Your task to perform on an android device: Clear the cart on bestbuy. Search for "razer thresher" on bestbuy, select the first entry, add it to the cart, then select checkout. Image 0: 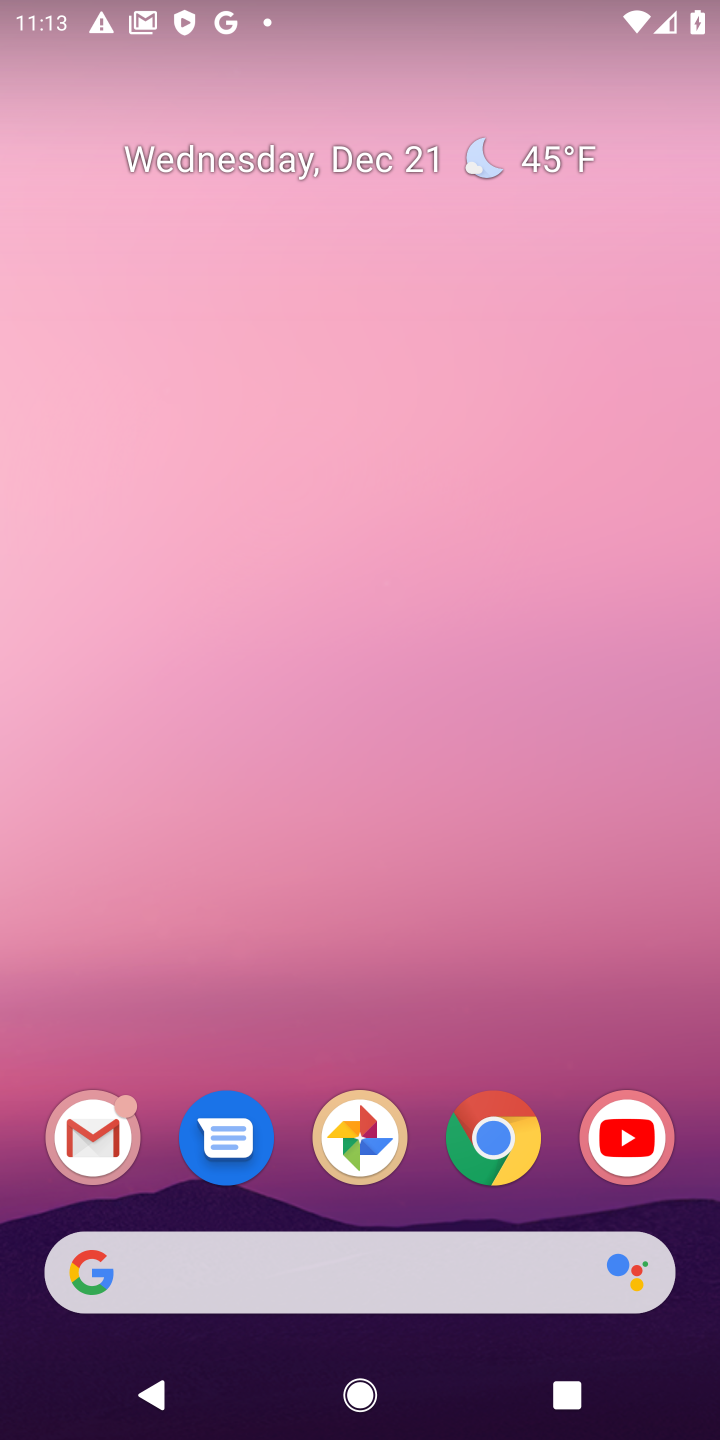
Step 0: click (502, 1151)
Your task to perform on an android device: Clear the cart on bestbuy. Search for "razer thresher" on bestbuy, select the first entry, add it to the cart, then select checkout. Image 1: 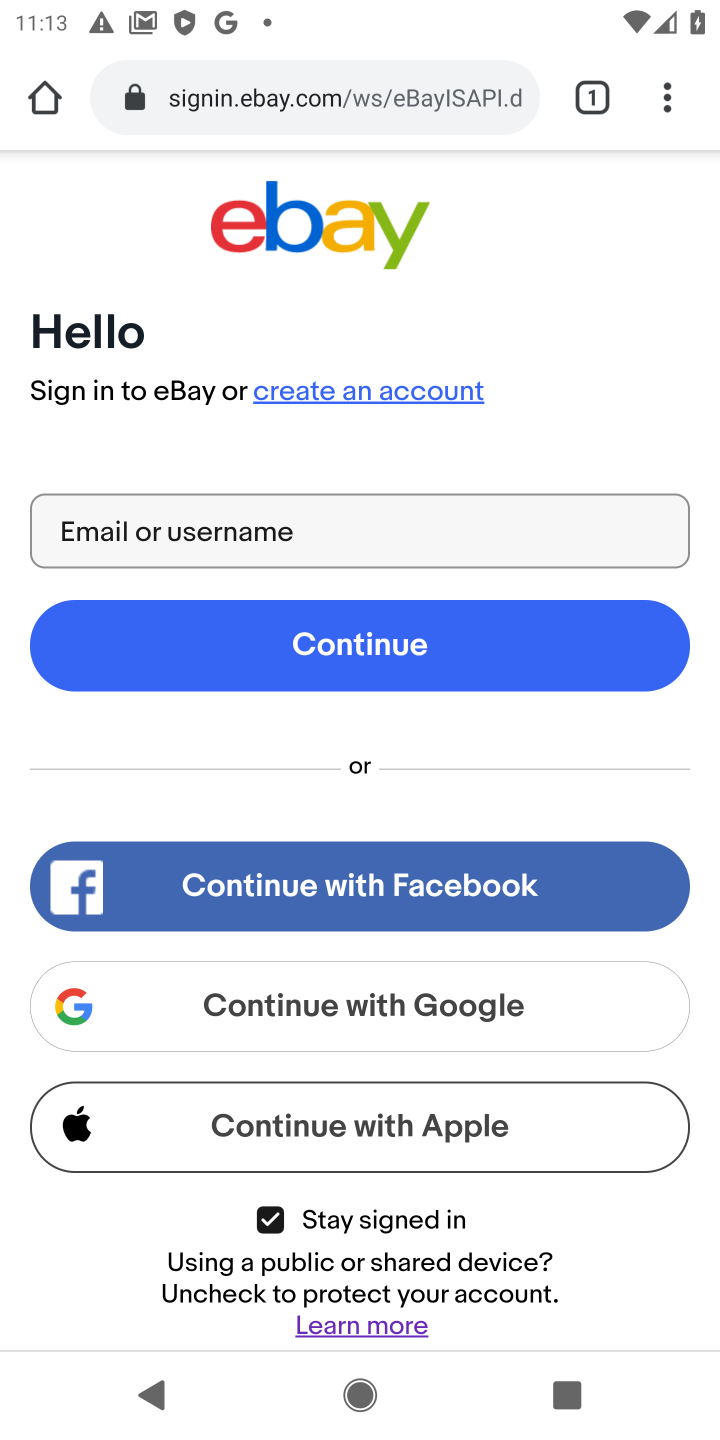
Step 1: click (265, 102)
Your task to perform on an android device: Clear the cart on bestbuy. Search for "razer thresher" on bestbuy, select the first entry, add it to the cart, then select checkout. Image 2: 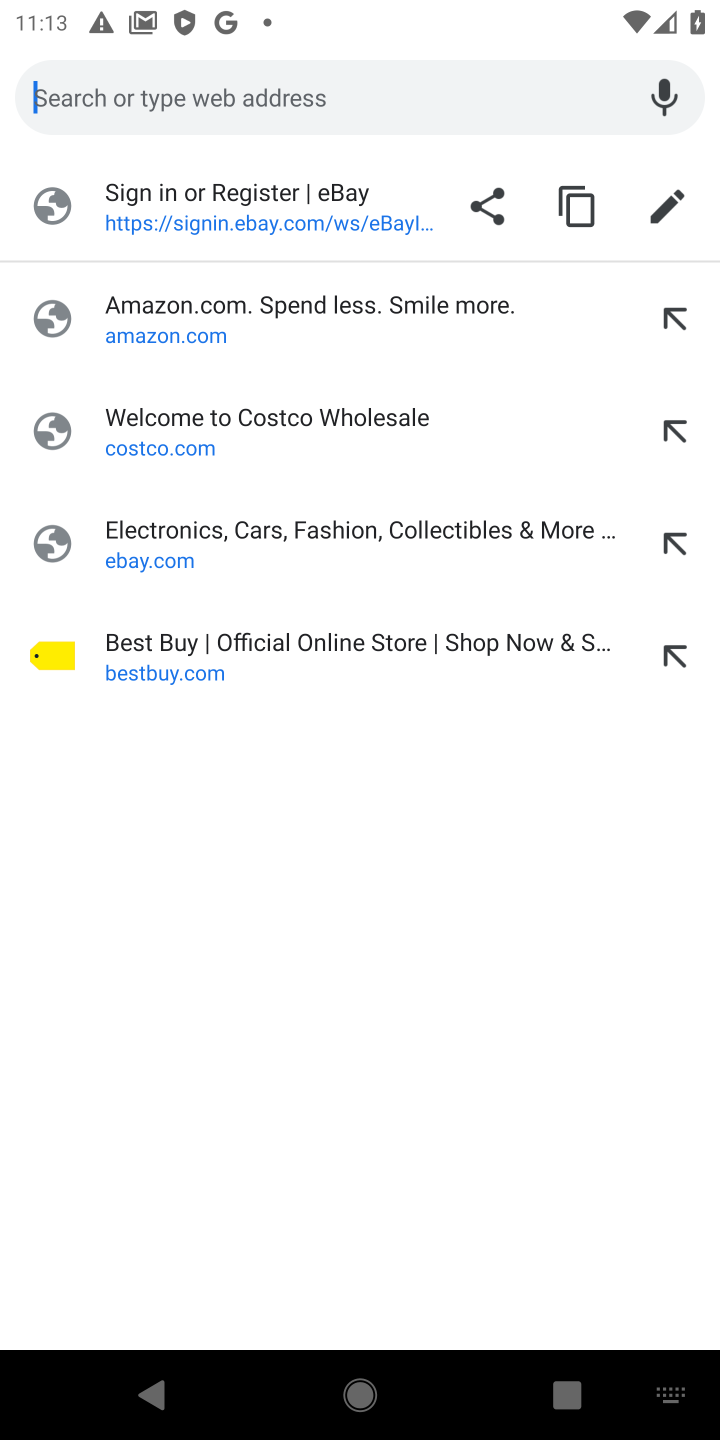
Step 2: click (167, 657)
Your task to perform on an android device: Clear the cart on bestbuy. Search for "razer thresher" on bestbuy, select the first entry, add it to the cart, then select checkout. Image 3: 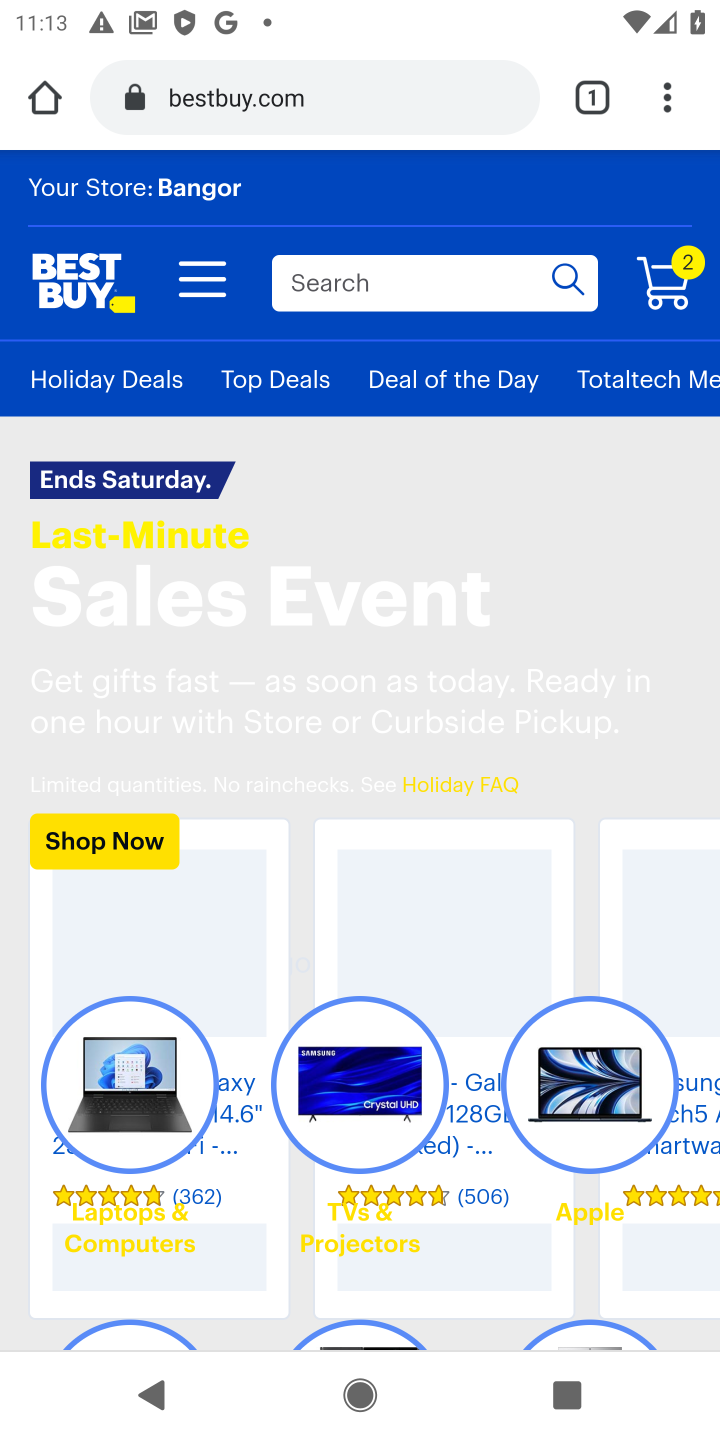
Step 3: click (652, 292)
Your task to perform on an android device: Clear the cart on bestbuy. Search for "razer thresher" on bestbuy, select the first entry, add it to the cart, then select checkout. Image 4: 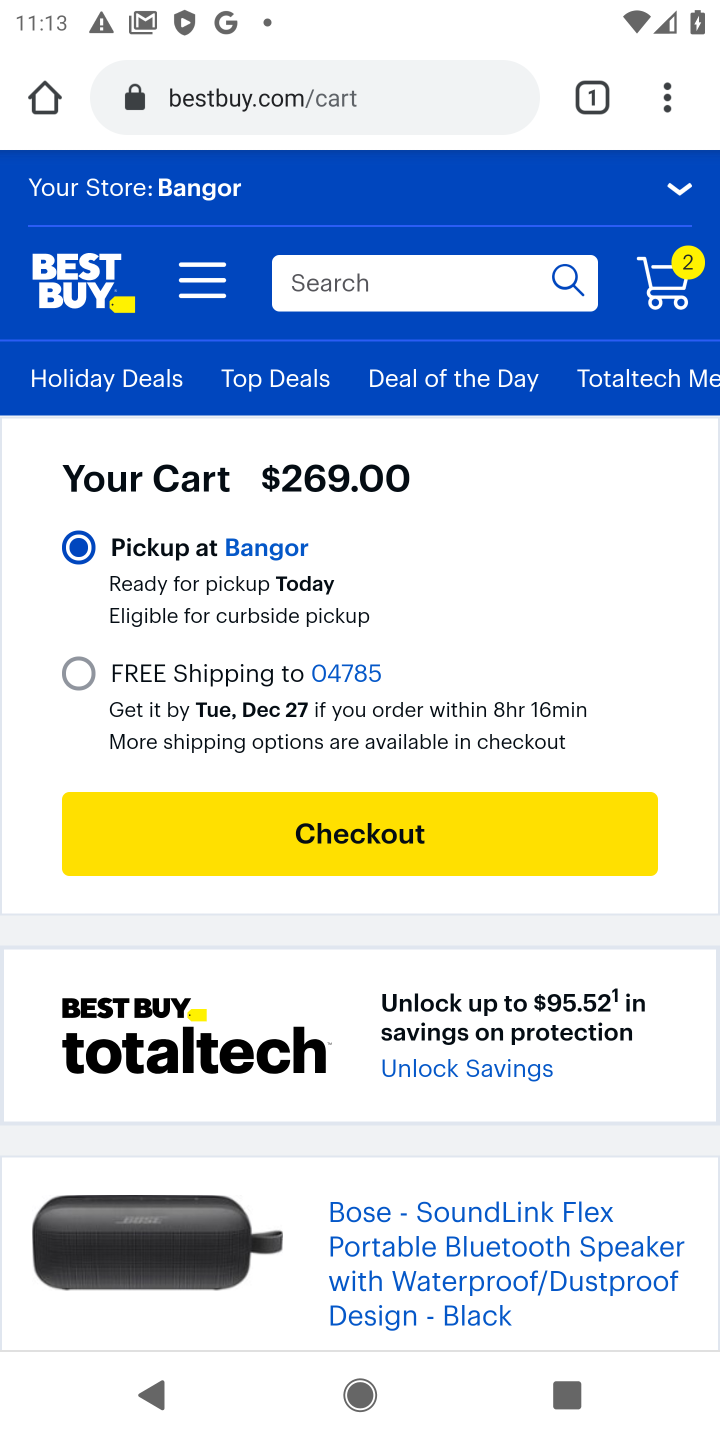
Step 4: drag from (326, 918) to (295, 559)
Your task to perform on an android device: Clear the cart on bestbuy. Search for "razer thresher" on bestbuy, select the first entry, add it to the cart, then select checkout. Image 5: 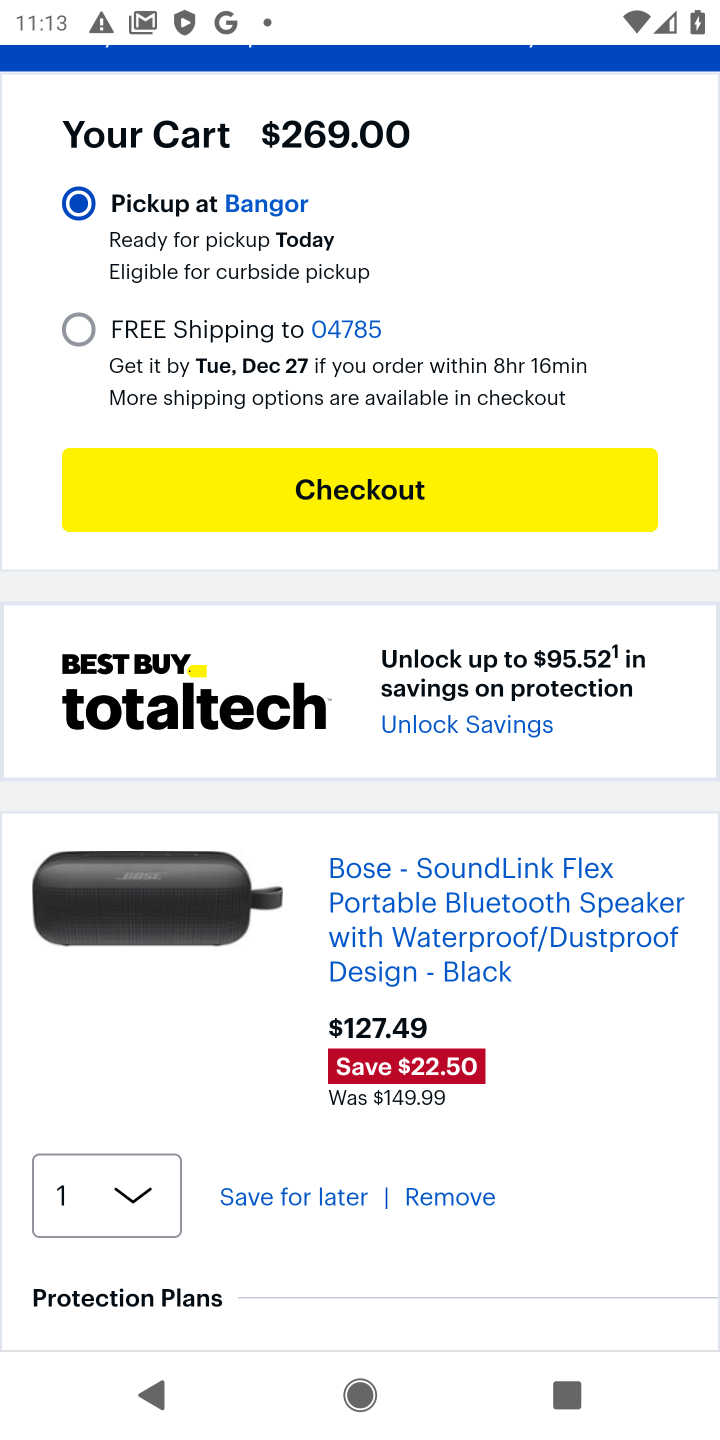
Step 5: click (436, 1192)
Your task to perform on an android device: Clear the cart on bestbuy. Search for "razer thresher" on bestbuy, select the first entry, add it to the cart, then select checkout. Image 6: 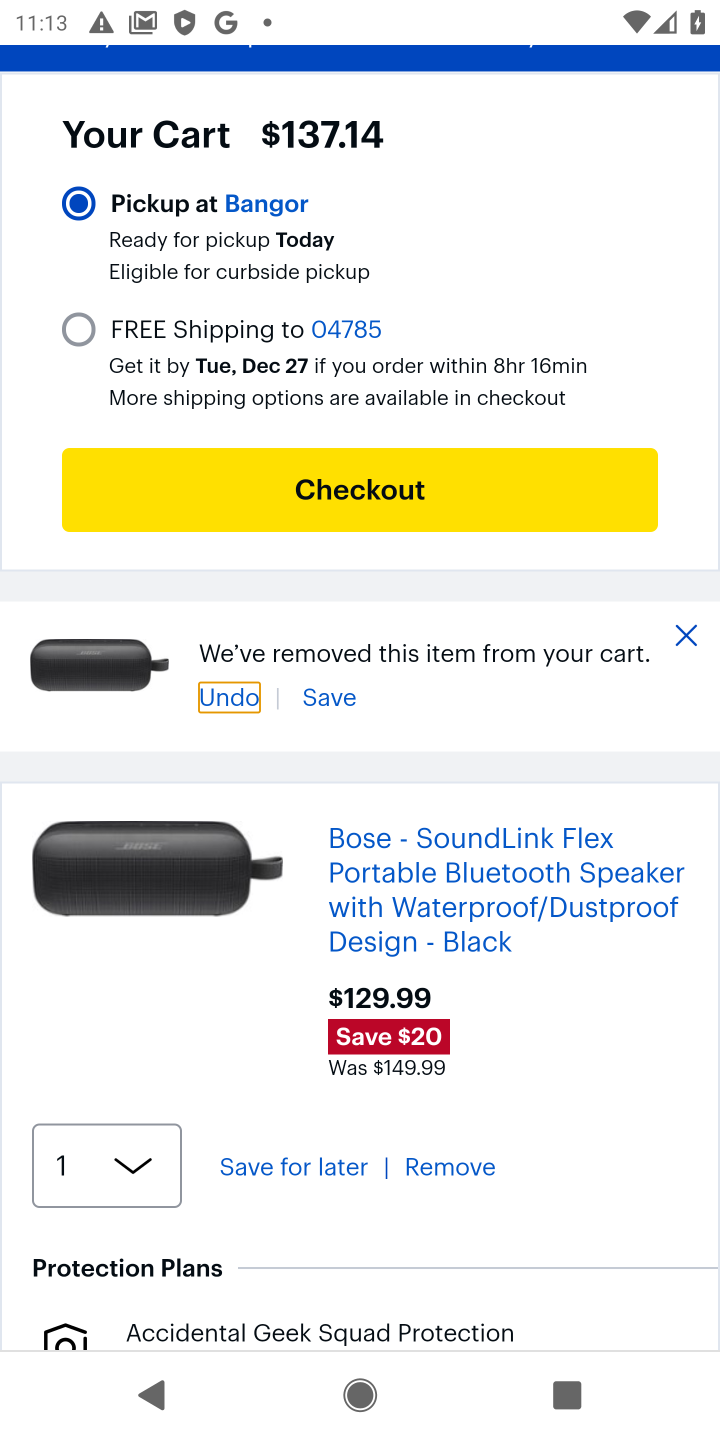
Step 6: click (447, 1172)
Your task to perform on an android device: Clear the cart on bestbuy. Search for "razer thresher" on bestbuy, select the first entry, add it to the cart, then select checkout. Image 7: 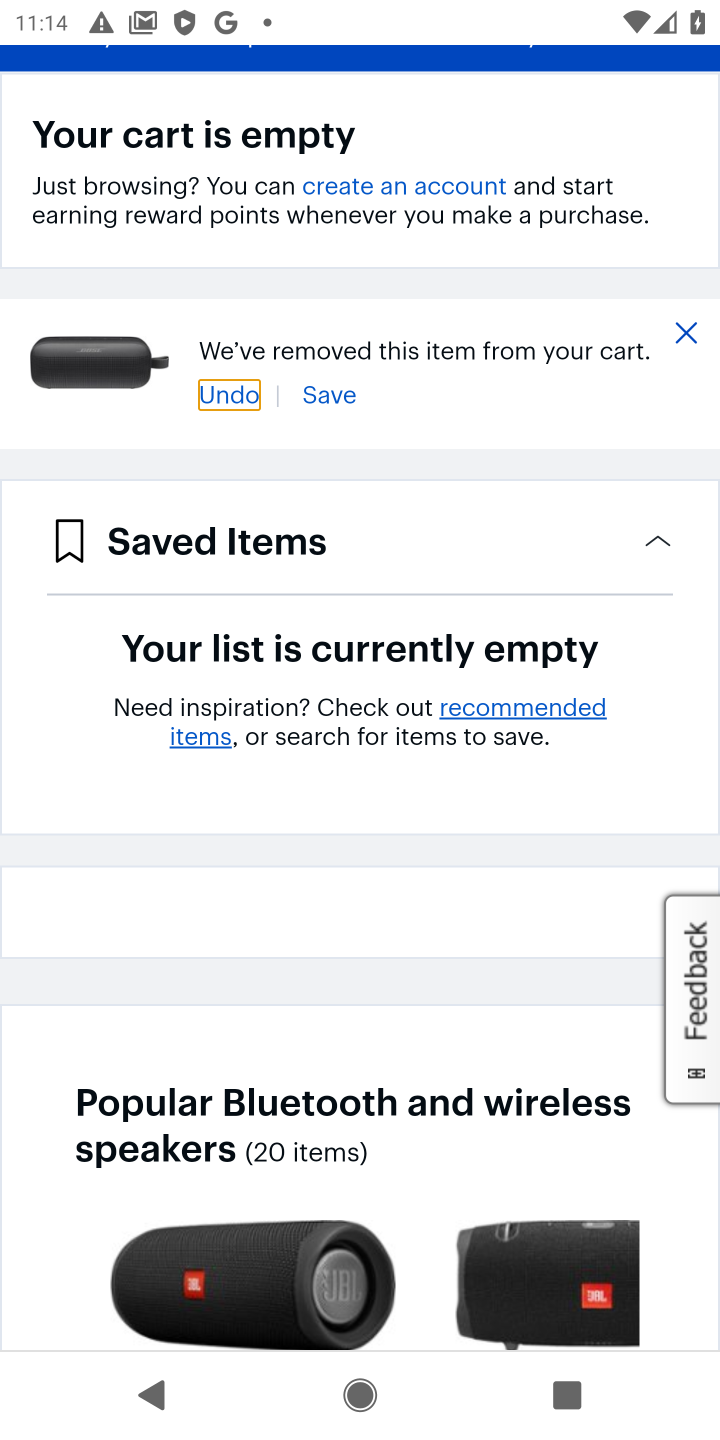
Step 7: drag from (419, 257) to (396, 776)
Your task to perform on an android device: Clear the cart on bestbuy. Search for "razer thresher" on bestbuy, select the first entry, add it to the cart, then select checkout. Image 8: 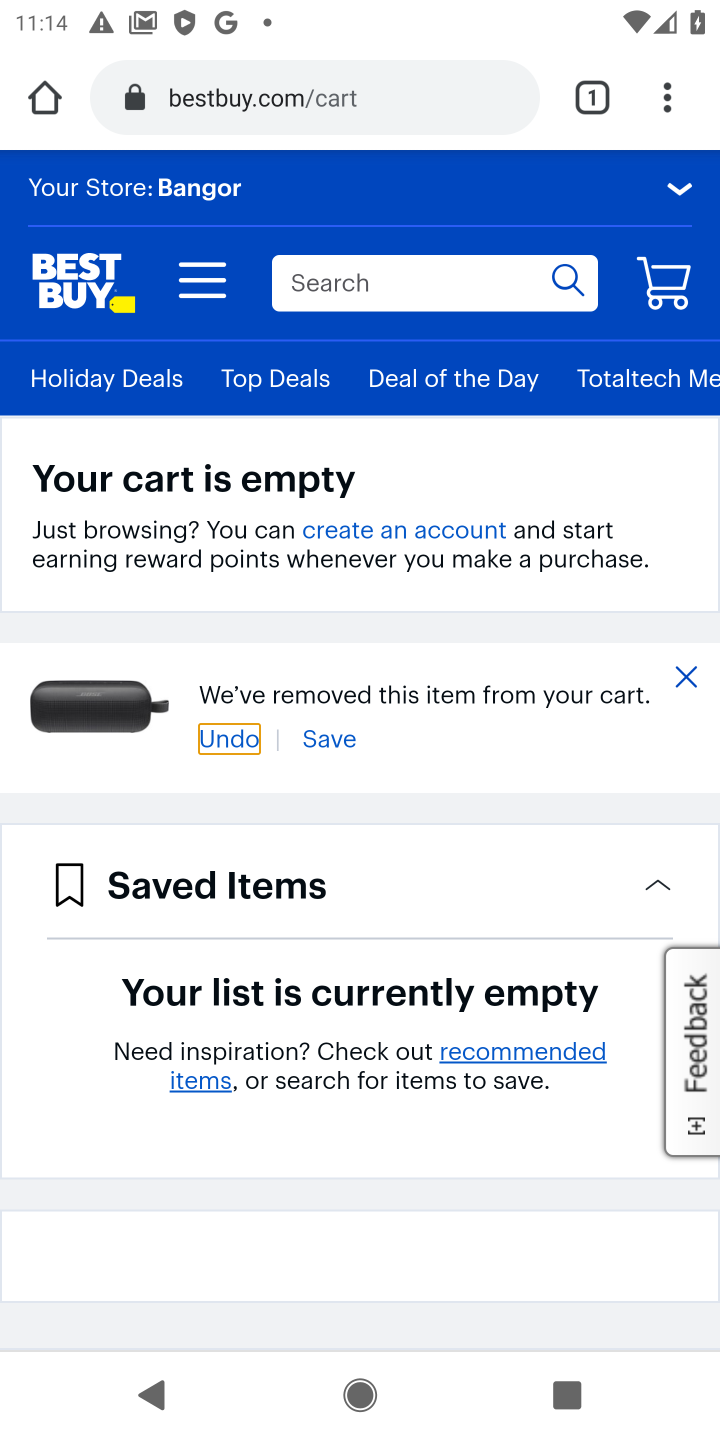
Step 8: click (294, 293)
Your task to perform on an android device: Clear the cart on bestbuy. Search for "razer thresher" on bestbuy, select the first entry, add it to the cart, then select checkout. Image 9: 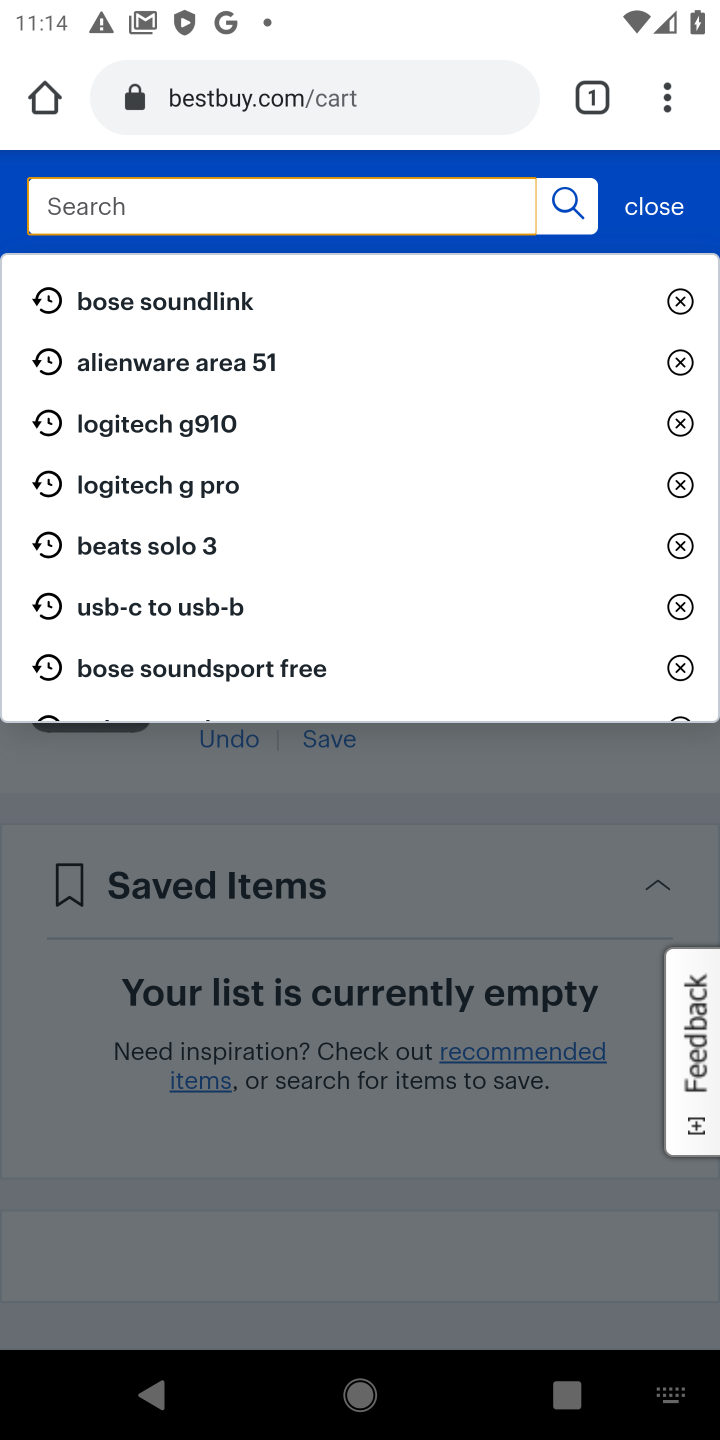
Step 9: type "razer thresher"
Your task to perform on an android device: Clear the cart on bestbuy. Search for "razer thresher" on bestbuy, select the first entry, add it to the cart, then select checkout. Image 10: 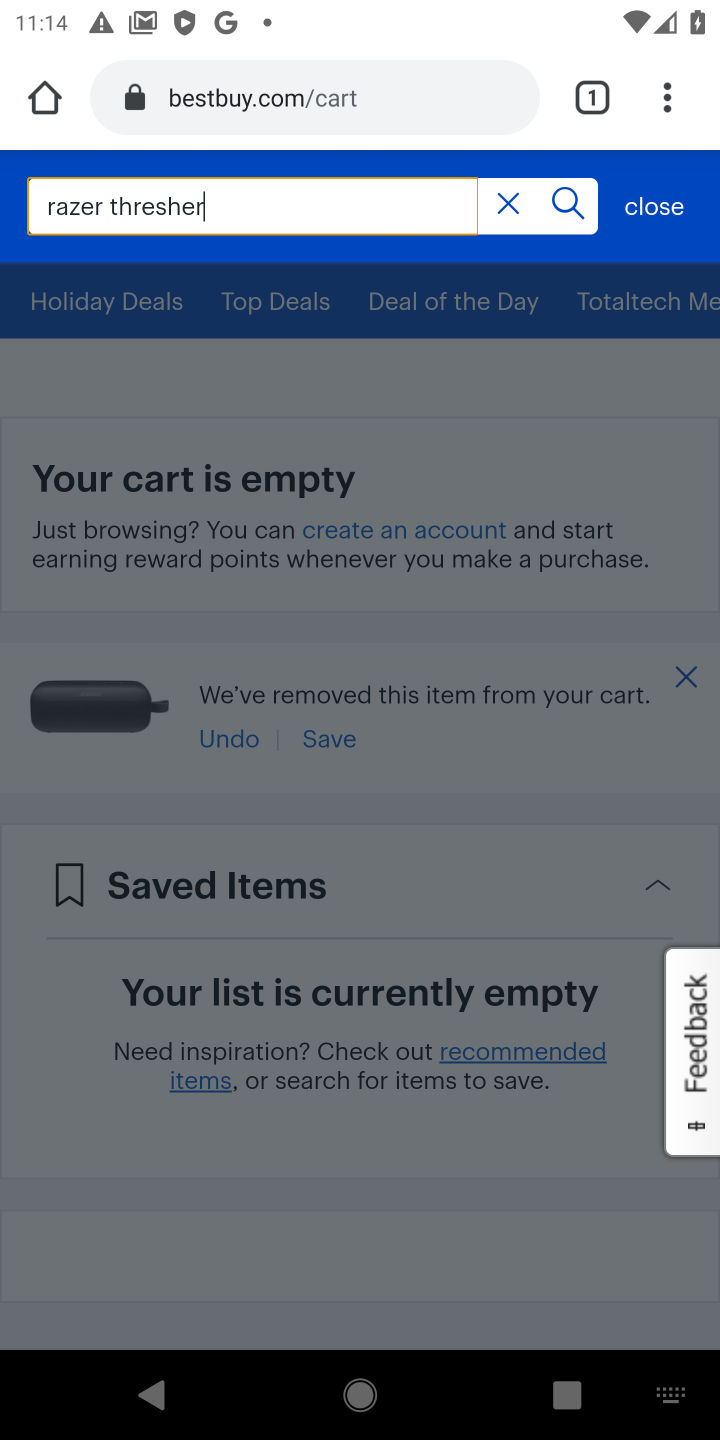
Step 10: click (572, 212)
Your task to perform on an android device: Clear the cart on bestbuy. Search for "razer thresher" on bestbuy, select the first entry, add it to the cart, then select checkout. Image 11: 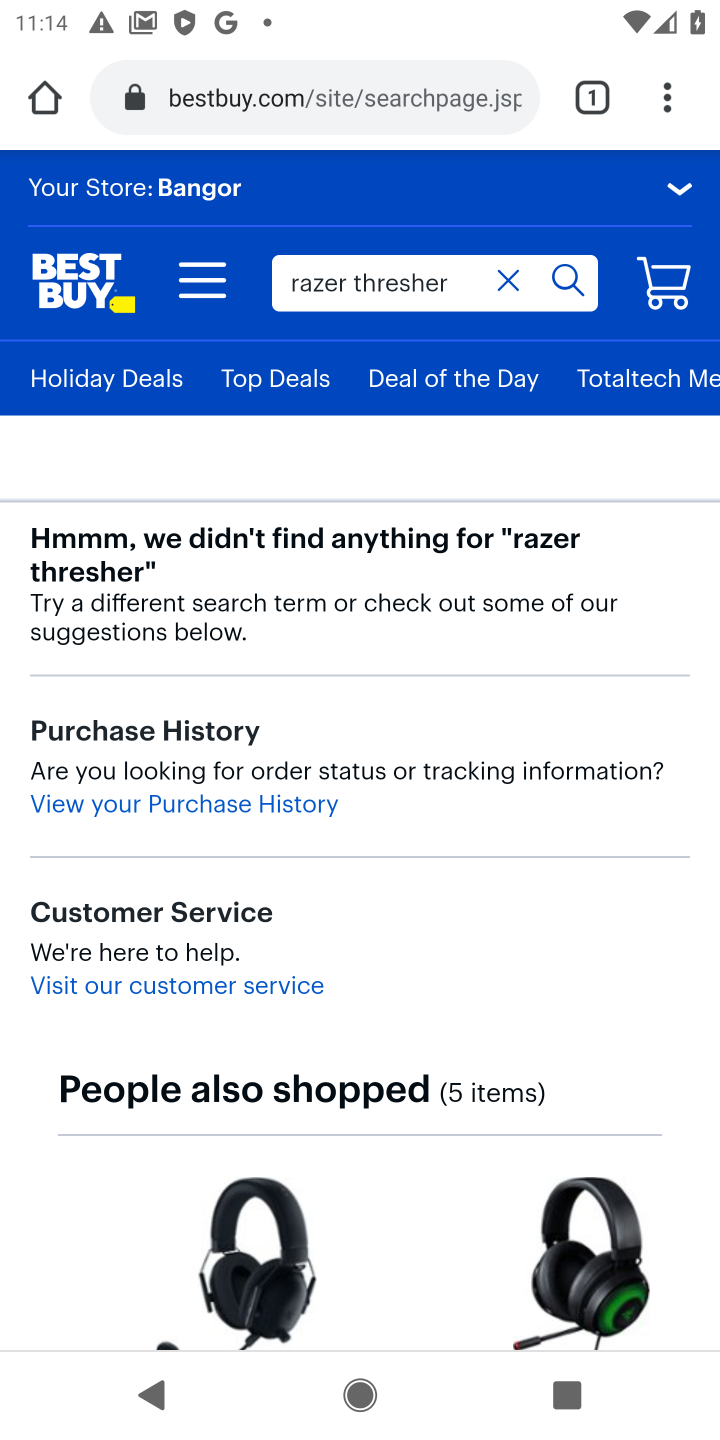
Step 11: task complete